Your task to perform on an android device: turn on showing notifications on the lock screen Image 0: 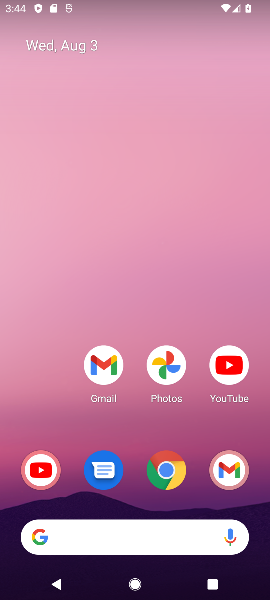
Step 0: drag from (135, 489) to (156, 93)
Your task to perform on an android device: turn on showing notifications on the lock screen Image 1: 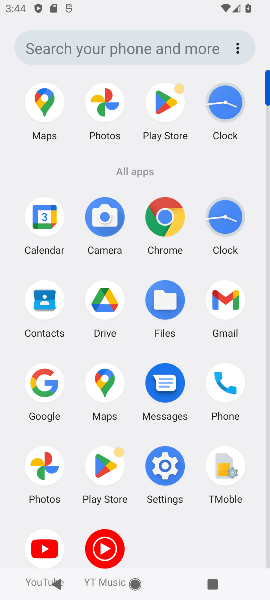
Step 1: click (162, 463)
Your task to perform on an android device: turn on showing notifications on the lock screen Image 2: 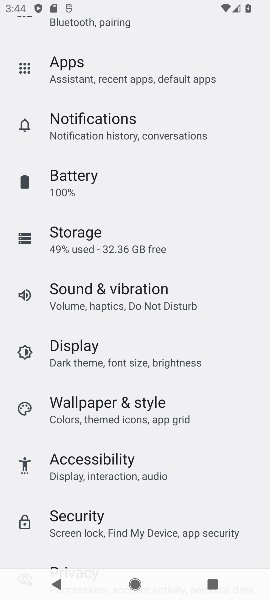
Step 2: click (156, 132)
Your task to perform on an android device: turn on showing notifications on the lock screen Image 3: 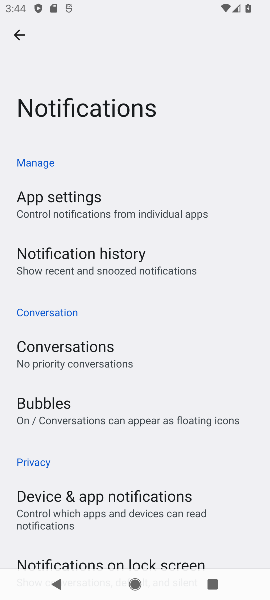
Step 3: drag from (127, 499) to (156, 237)
Your task to perform on an android device: turn on showing notifications on the lock screen Image 4: 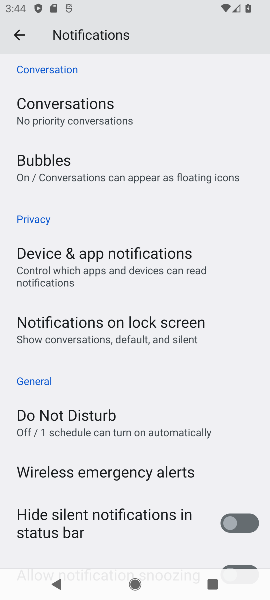
Step 4: click (137, 325)
Your task to perform on an android device: turn on showing notifications on the lock screen Image 5: 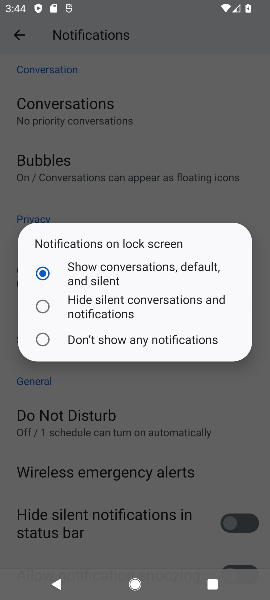
Step 5: task complete